Your task to perform on an android device: Do I have any events tomorrow? Image 0: 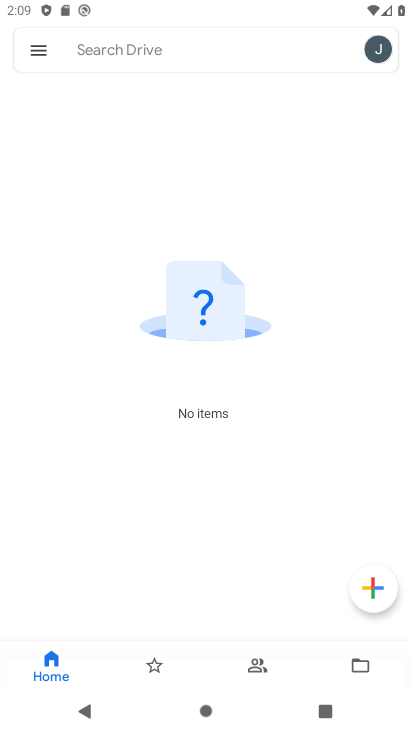
Step 0: press home button
Your task to perform on an android device: Do I have any events tomorrow? Image 1: 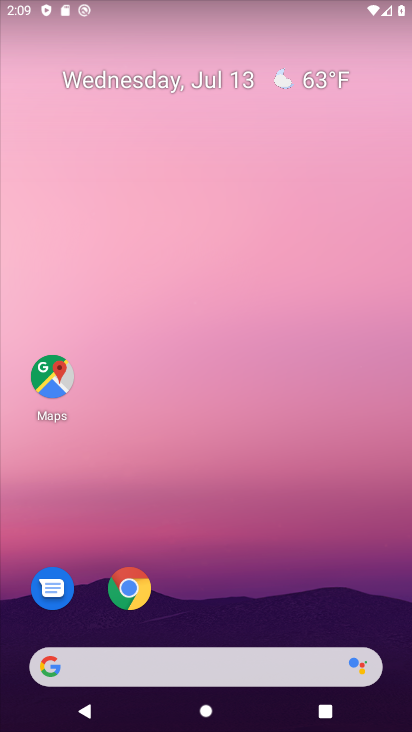
Step 1: drag from (205, 647) to (240, 157)
Your task to perform on an android device: Do I have any events tomorrow? Image 2: 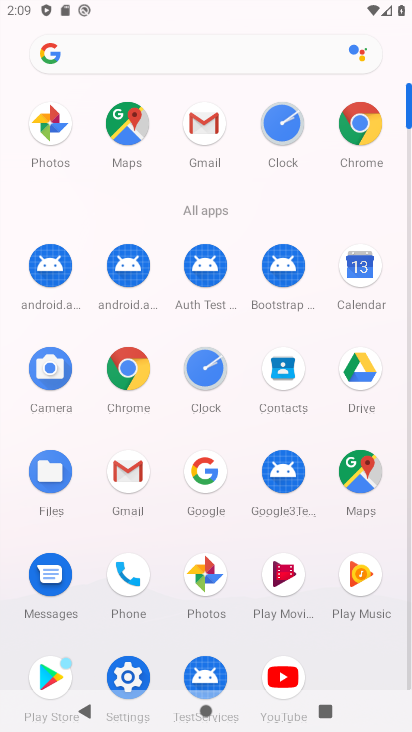
Step 2: click (367, 258)
Your task to perform on an android device: Do I have any events tomorrow? Image 3: 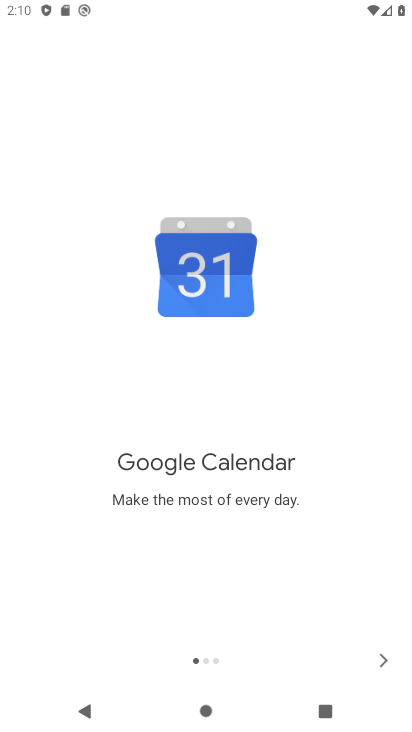
Step 3: click (387, 656)
Your task to perform on an android device: Do I have any events tomorrow? Image 4: 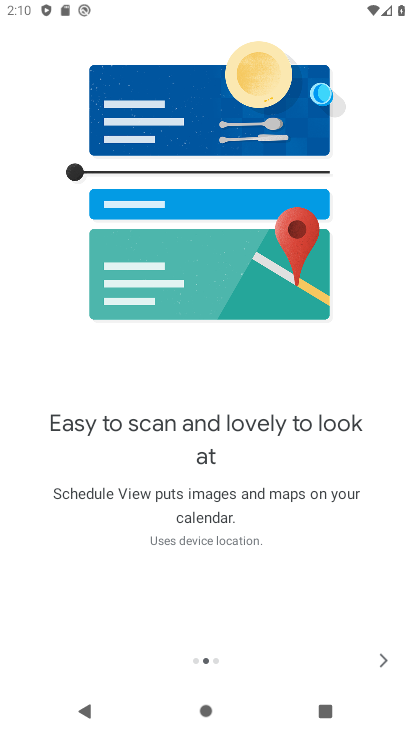
Step 4: click (387, 656)
Your task to perform on an android device: Do I have any events tomorrow? Image 5: 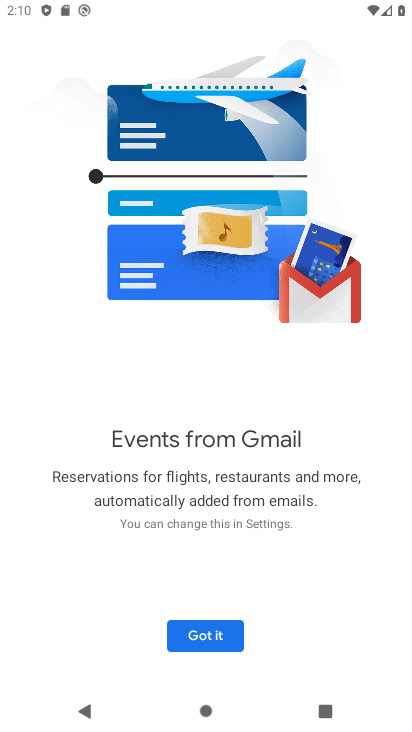
Step 5: click (225, 632)
Your task to perform on an android device: Do I have any events tomorrow? Image 6: 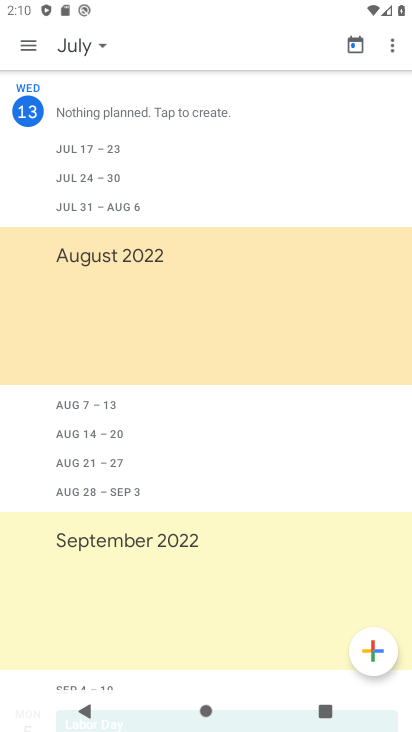
Step 6: click (97, 45)
Your task to perform on an android device: Do I have any events tomorrow? Image 7: 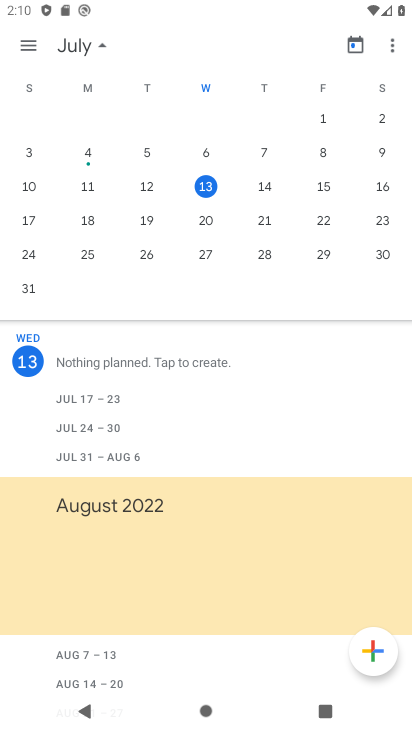
Step 7: click (263, 189)
Your task to perform on an android device: Do I have any events tomorrow? Image 8: 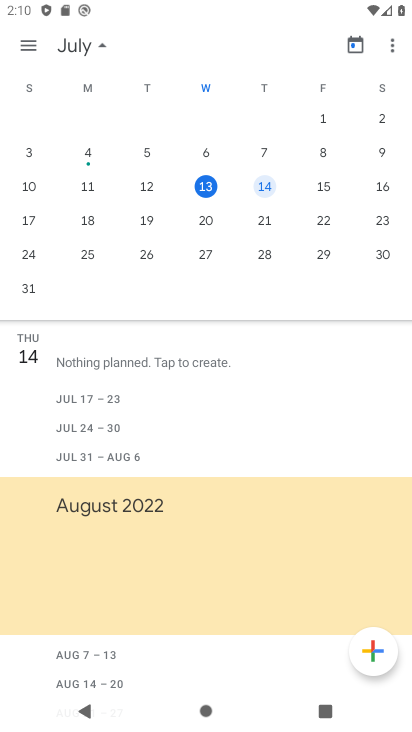
Step 8: click (103, 47)
Your task to perform on an android device: Do I have any events tomorrow? Image 9: 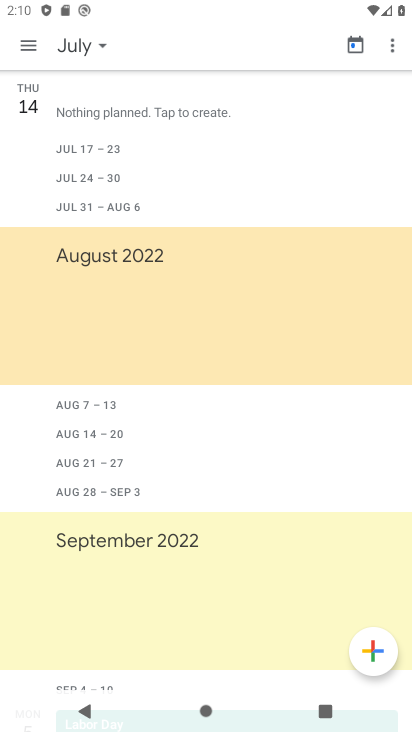
Step 9: task complete